Your task to perform on an android device: all mails in gmail Image 0: 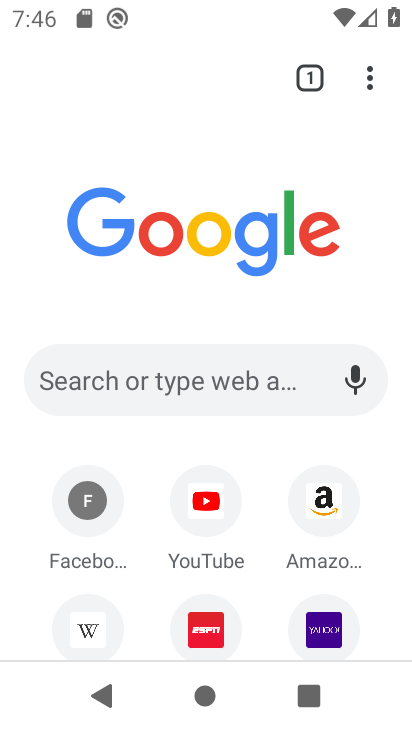
Step 0: press back button
Your task to perform on an android device: all mails in gmail Image 1: 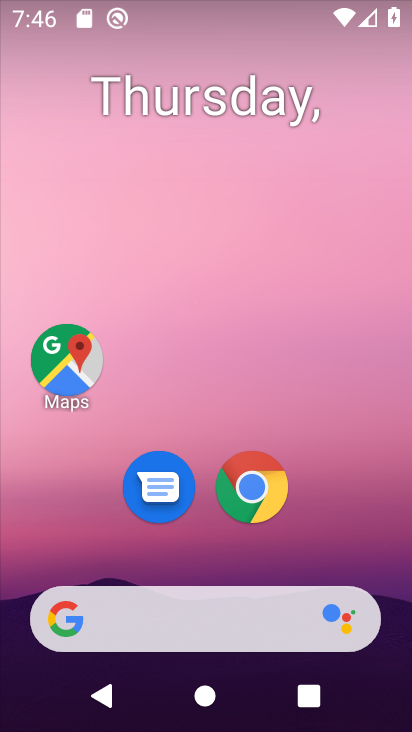
Step 1: drag from (183, 573) to (282, 74)
Your task to perform on an android device: all mails in gmail Image 2: 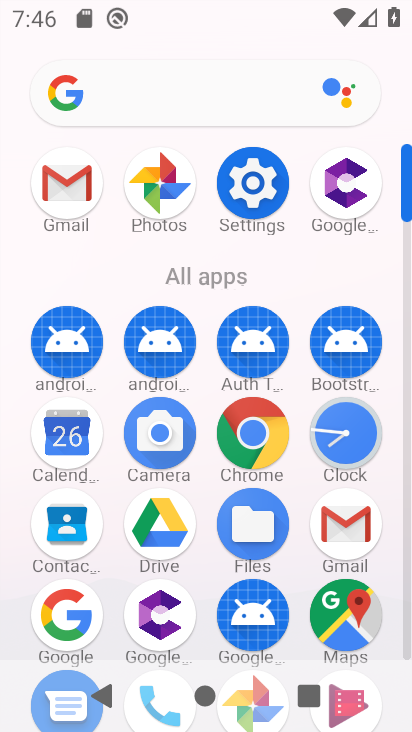
Step 2: click (359, 532)
Your task to perform on an android device: all mails in gmail Image 3: 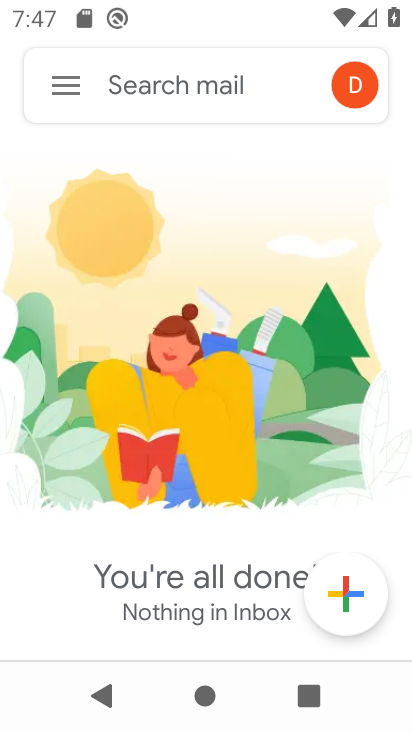
Step 3: click (67, 77)
Your task to perform on an android device: all mails in gmail Image 4: 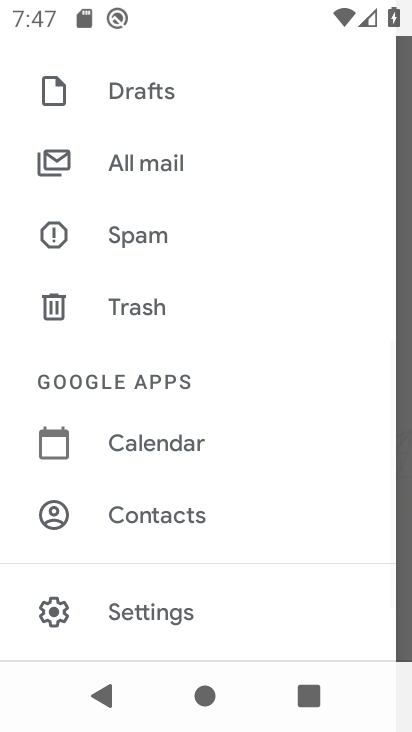
Step 4: click (164, 172)
Your task to perform on an android device: all mails in gmail Image 5: 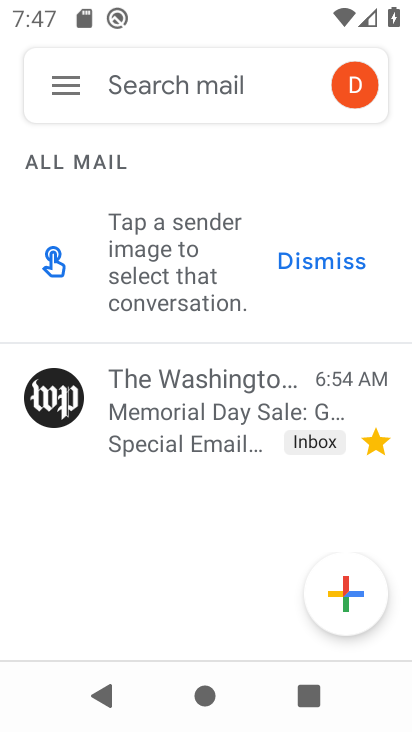
Step 5: task complete